Your task to perform on an android device: What is the capital of Canada? Image 0: 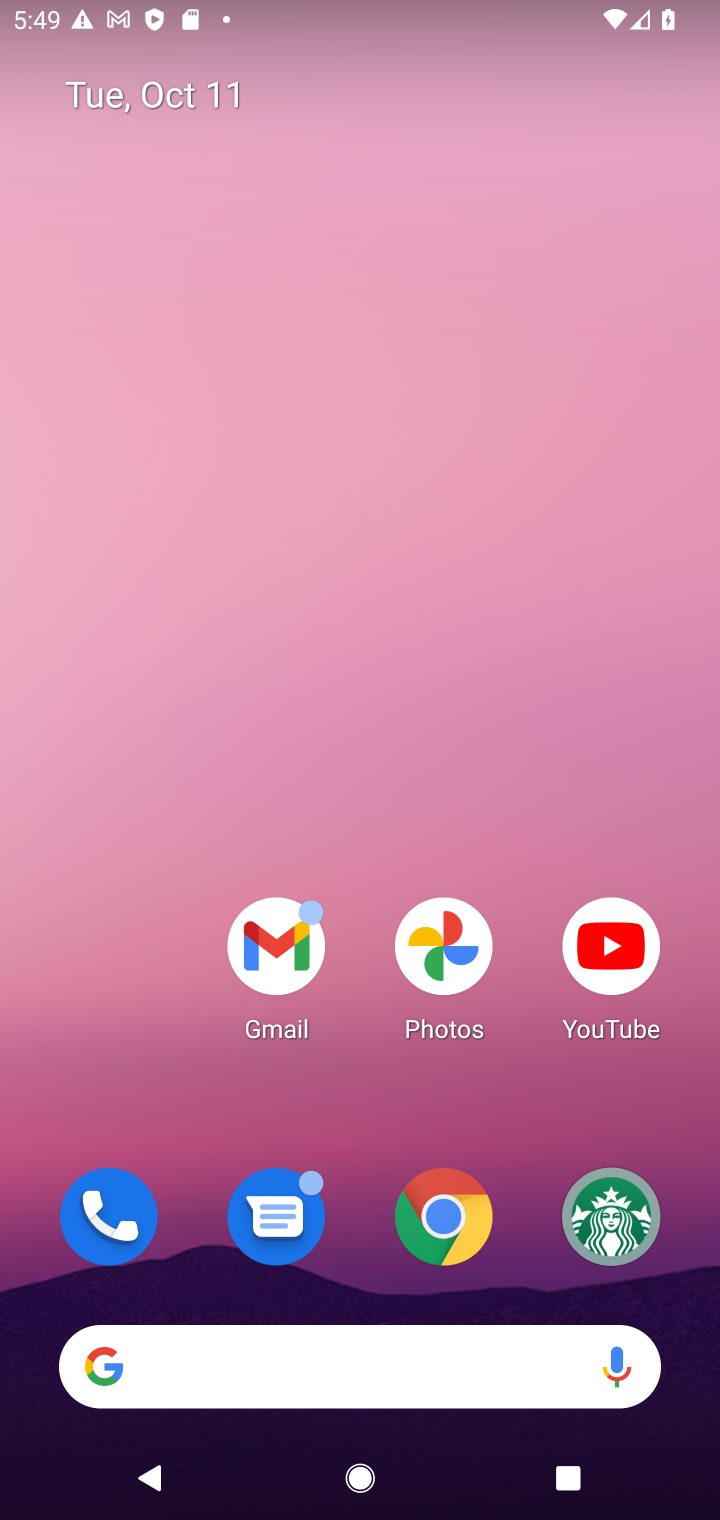
Step 0: click (446, 1213)
Your task to perform on an android device: What is the capital of Canada? Image 1: 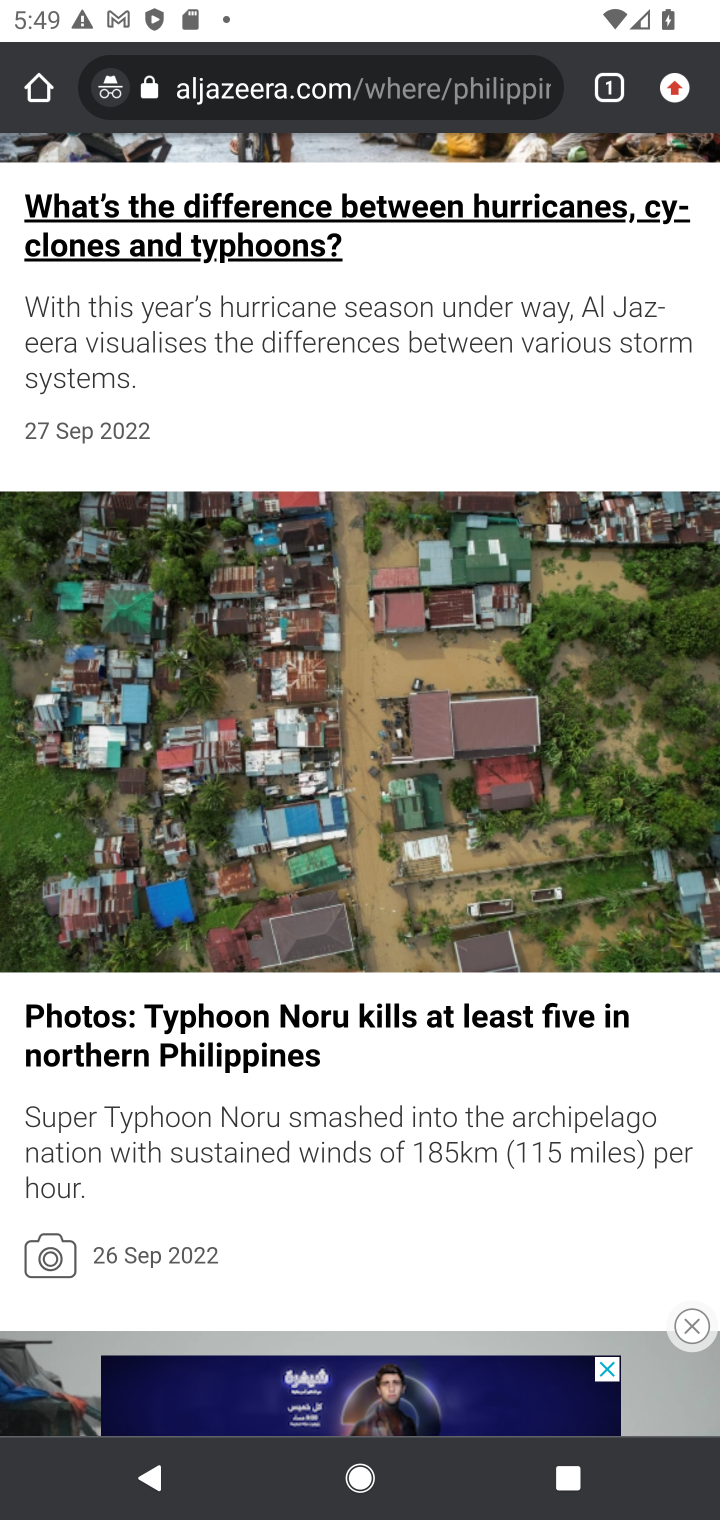
Step 1: click (363, 84)
Your task to perform on an android device: What is the capital of Canada? Image 2: 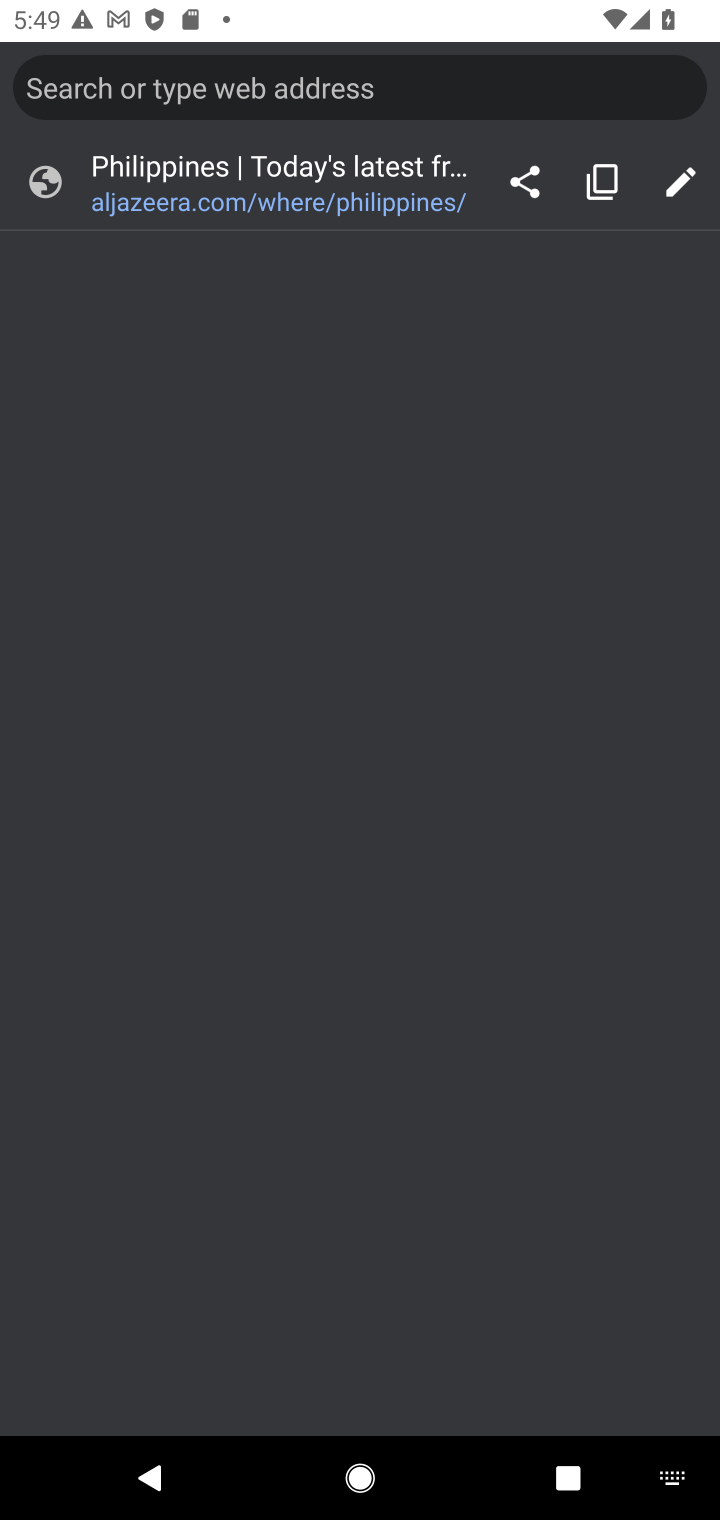
Step 2: type "What is the capital of Canada?"
Your task to perform on an android device: What is the capital of Canada? Image 3: 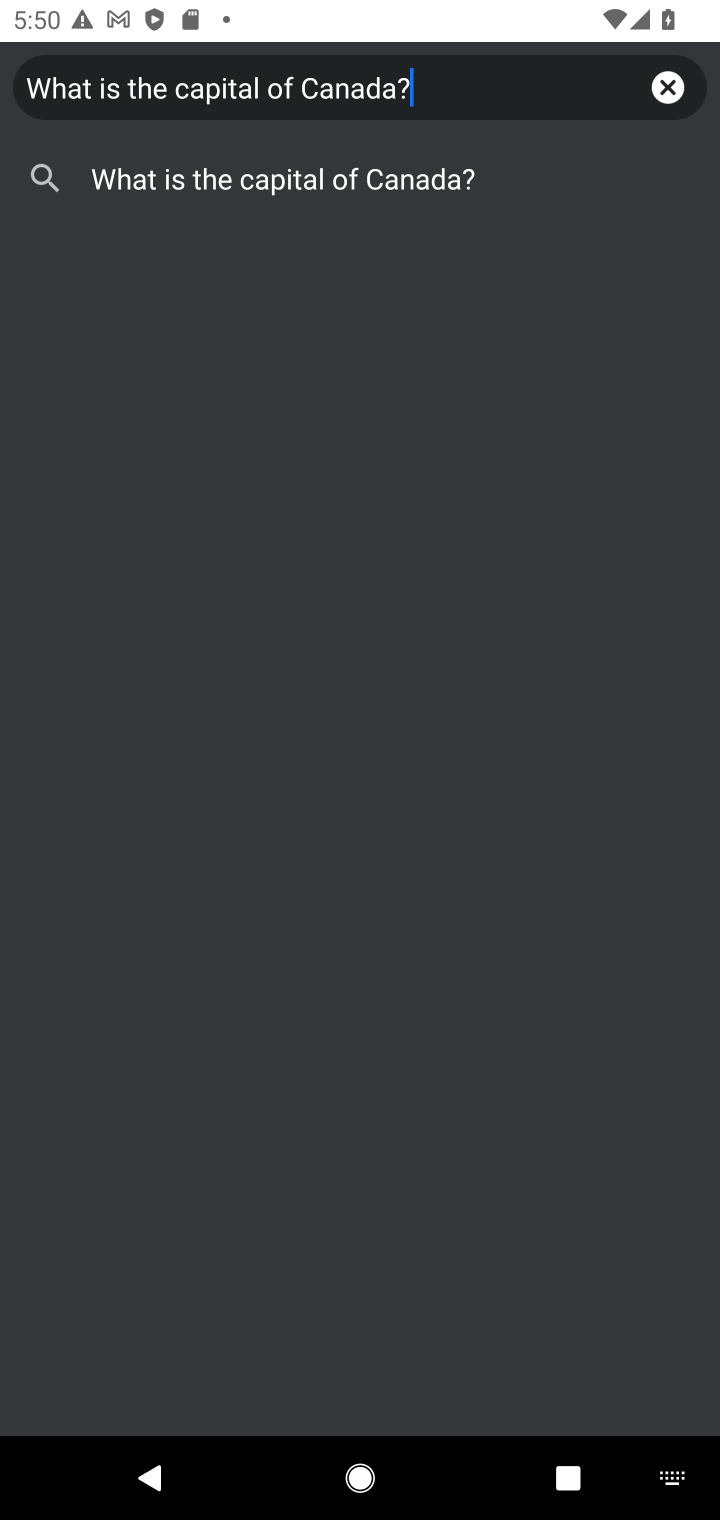
Step 3: click (448, 186)
Your task to perform on an android device: What is the capital of Canada? Image 4: 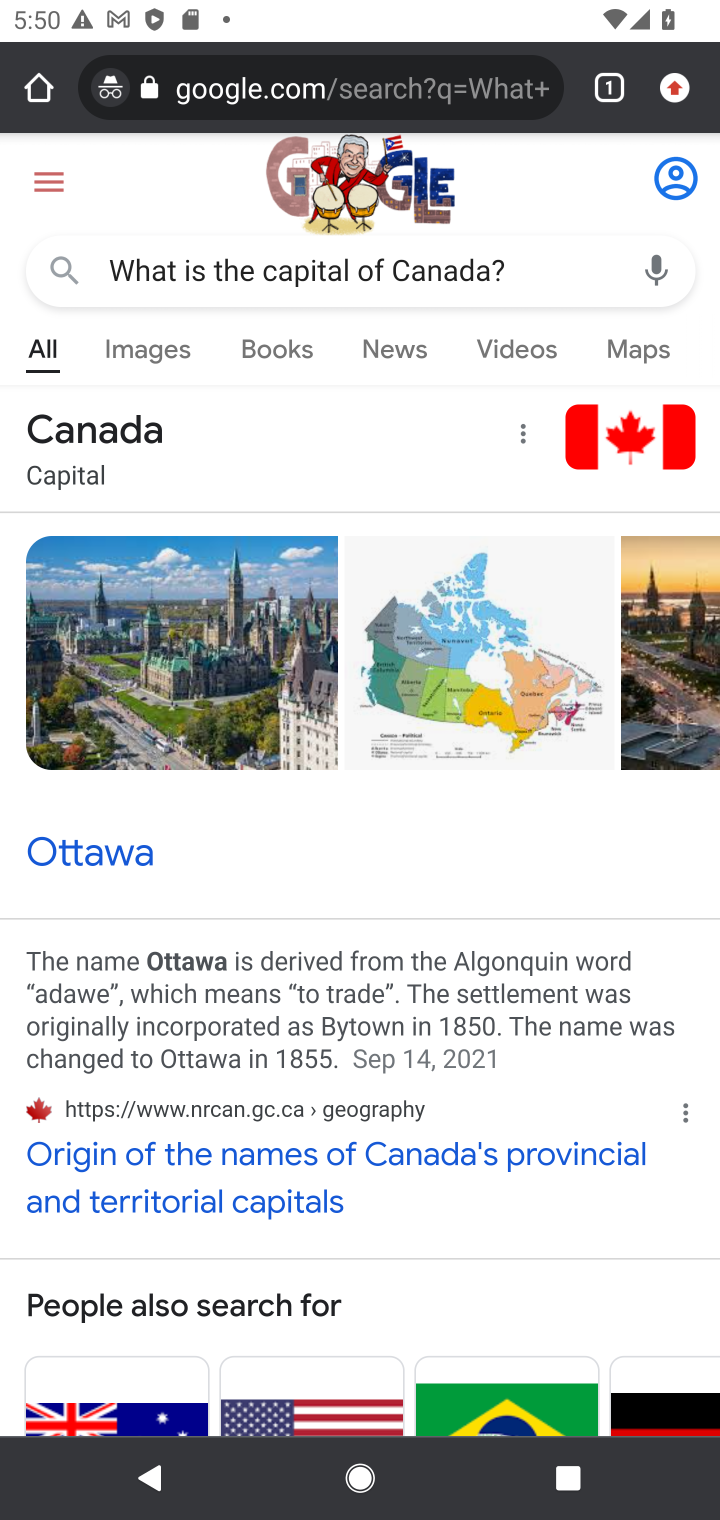
Step 4: task complete